Your task to perform on an android device: Play the last video I watched on Youtube Image 0: 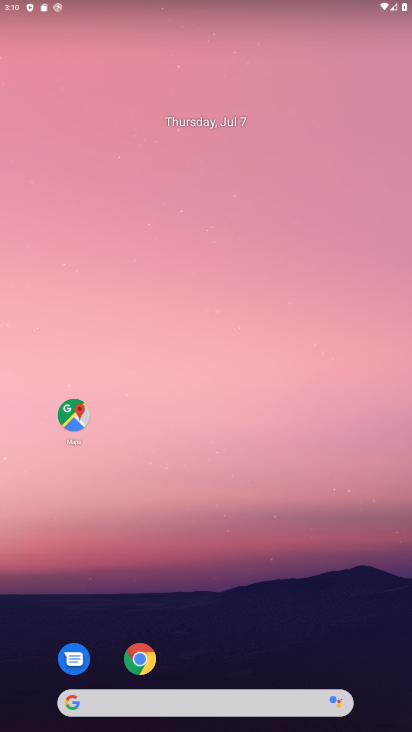
Step 0: drag from (223, 620) to (163, 156)
Your task to perform on an android device: Play the last video I watched on Youtube Image 1: 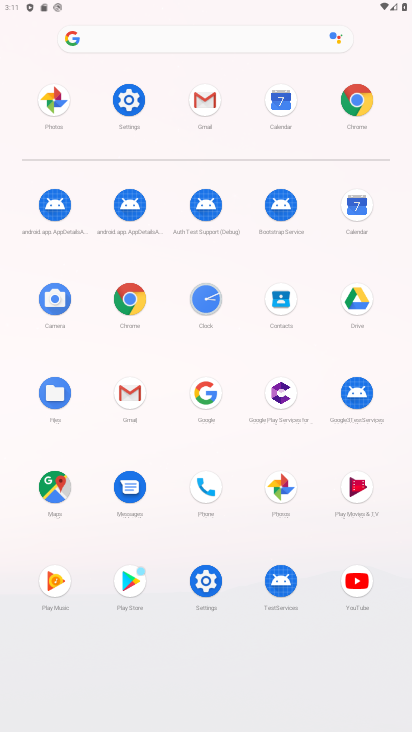
Step 1: click (365, 574)
Your task to perform on an android device: Play the last video I watched on Youtube Image 2: 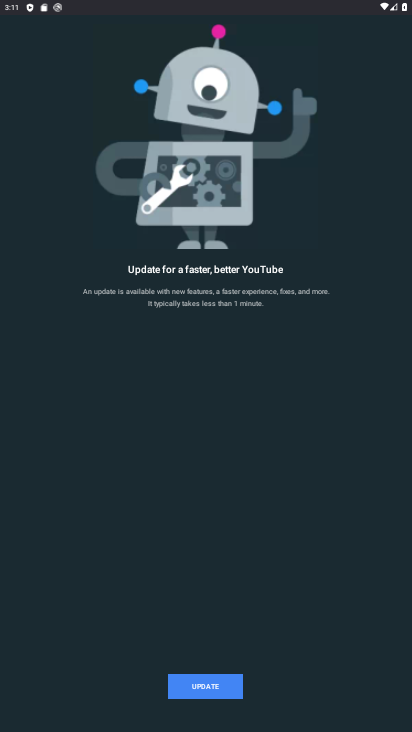
Step 2: press back button
Your task to perform on an android device: Play the last video I watched on Youtube Image 3: 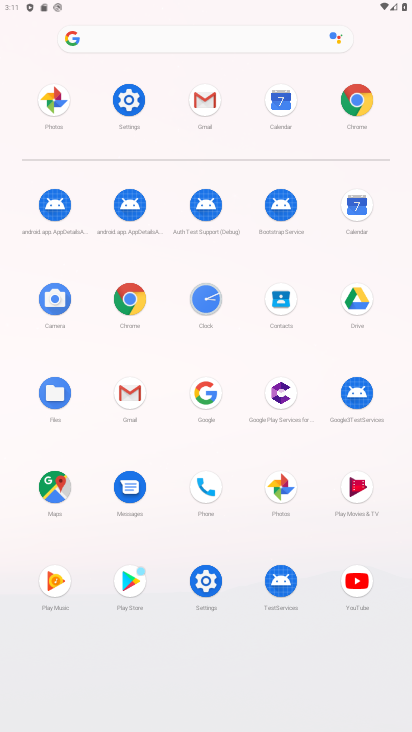
Step 3: click (353, 578)
Your task to perform on an android device: Play the last video I watched on Youtube Image 4: 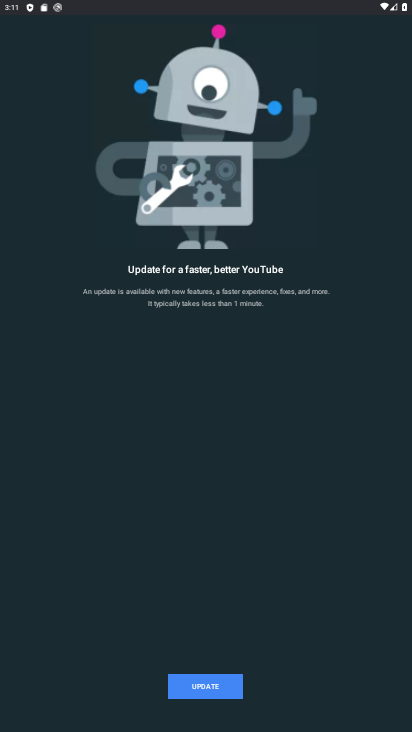
Step 4: click (222, 686)
Your task to perform on an android device: Play the last video I watched on Youtube Image 5: 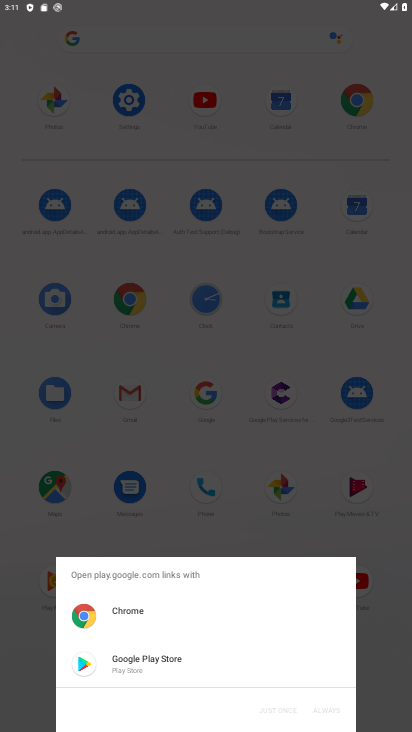
Step 5: click (277, 673)
Your task to perform on an android device: Play the last video I watched on Youtube Image 6: 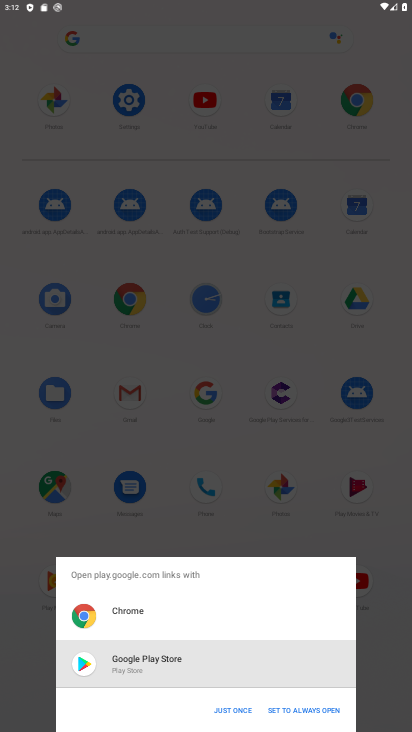
Step 6: click (238, 711)
Your task to perform on an android device: Play the last video I watched on Youtube Image 7: 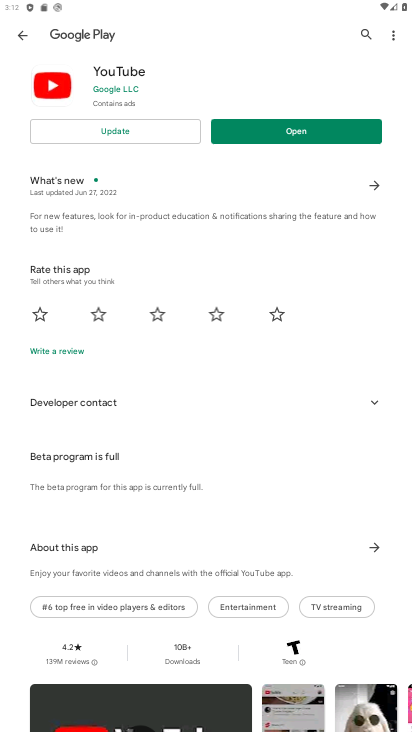
Step 7: click (144, 121)
Your task to perform on an android device: Play the last video I watched on Youtube Image 8: 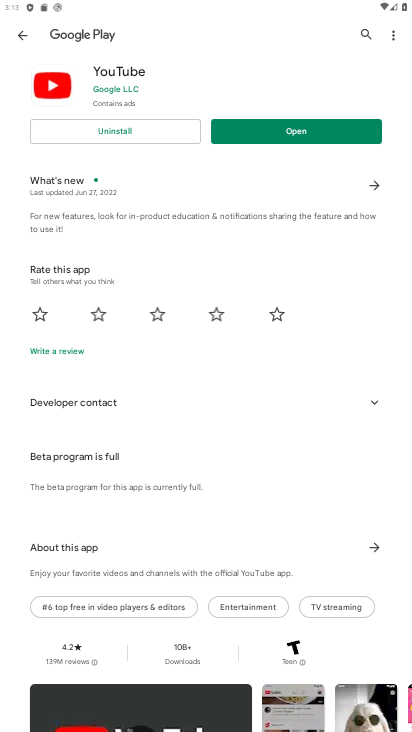
Step 8: click (273, 131)
Your task to perform on an android device: Play the last video I watched on Youtube Image 9: 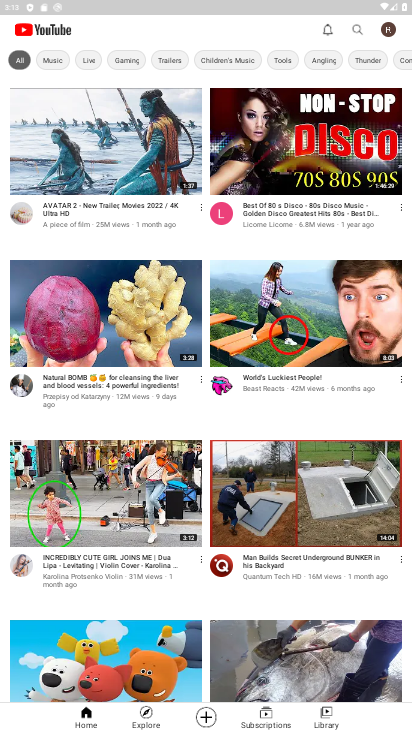
Step 9: click (323, 717)
Your task to perform on an android device: Play the last video I watched on Youtube Image 10: 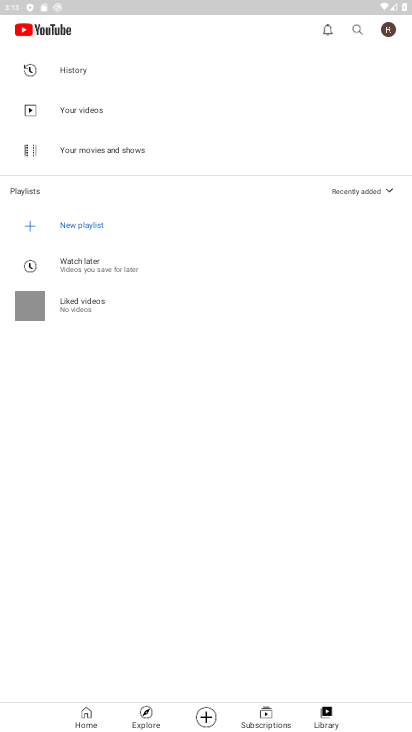
Step 10: click (81, 65)
Your task to perform on an android device: Play the last video I watched on Youtube Image 11: 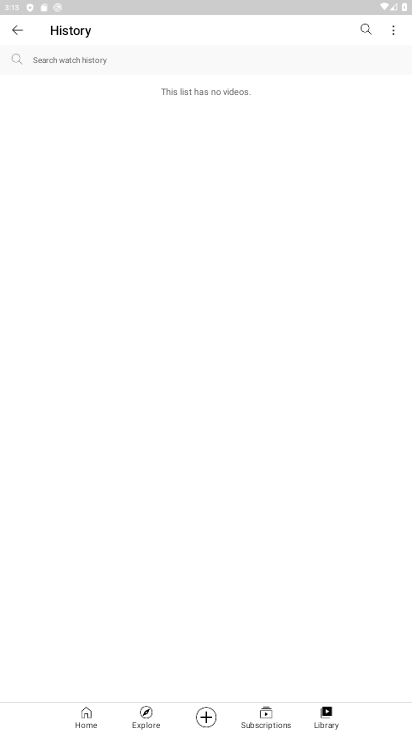
Step 11: task complete